Your task to perform on an android device: read, delete, or share a saved page in the chrome app Image 0: 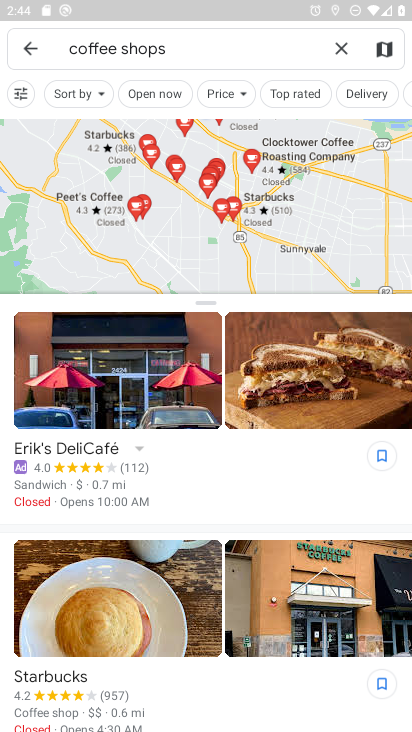
Step 0: press home button
Your task to perform on an android device: read, delete, or share a saved page in the chrome app Image 1: 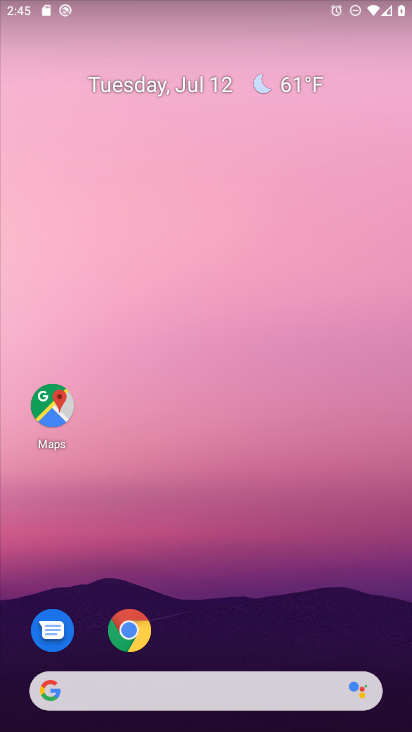
Step 1: click (132, 635)
Your task to perform on an android device: read, delete, or share a saved page in the chrome app Image 2: 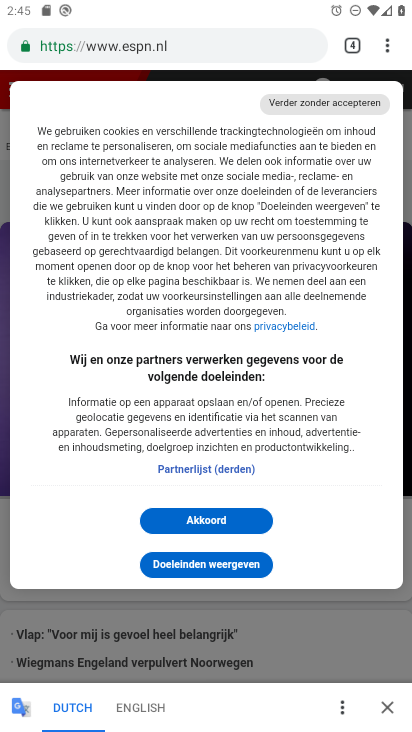
Step 2: click (391, 51)
Your task to perform on an android device: read, delete, or share a saved page in the chrome app Image 3: 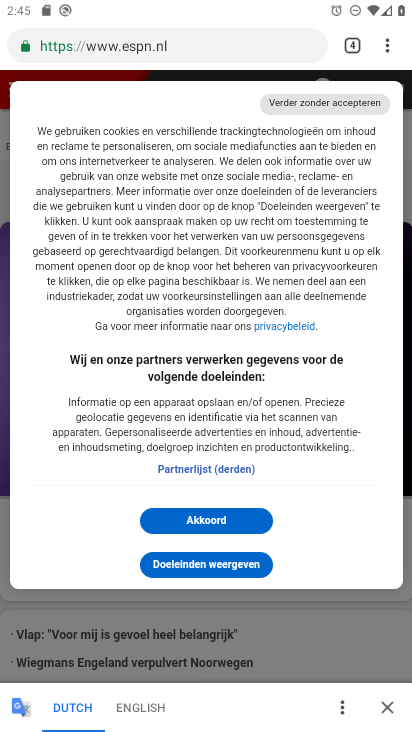
Step 3: click (380, 45)
Your task to perform on an android device: read, delete, or share a saved page in the chrome app Image 4: 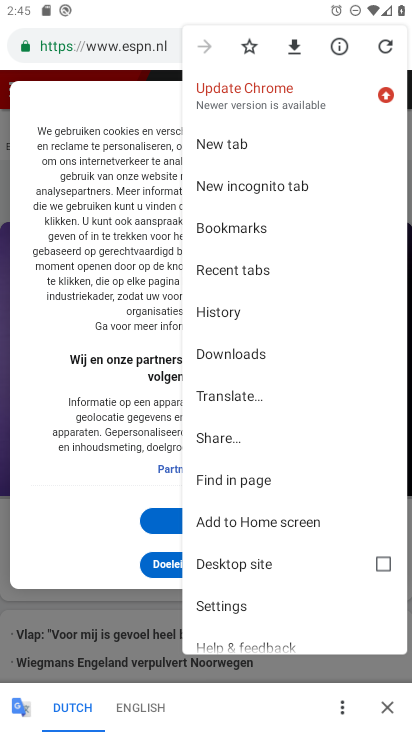
Step 4: click (240, 353)
Your task to perform on an android device: read, delete, or share a saved page in the chrome app Image 5: 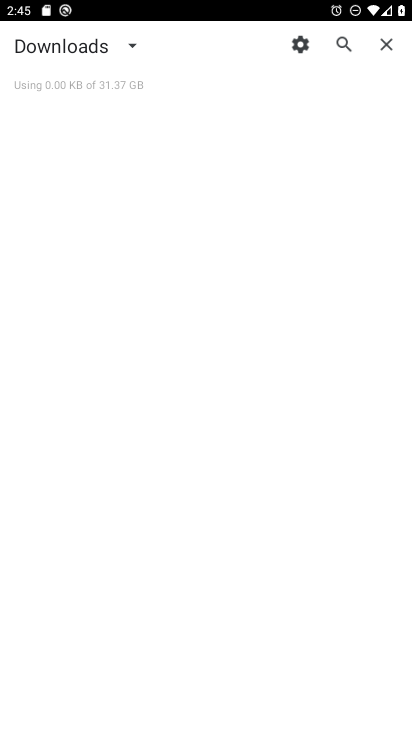
Step 5: click (134, 48)
Your task to perform on an android device: read, delete, or share a saved page in the chrome app Image 6: 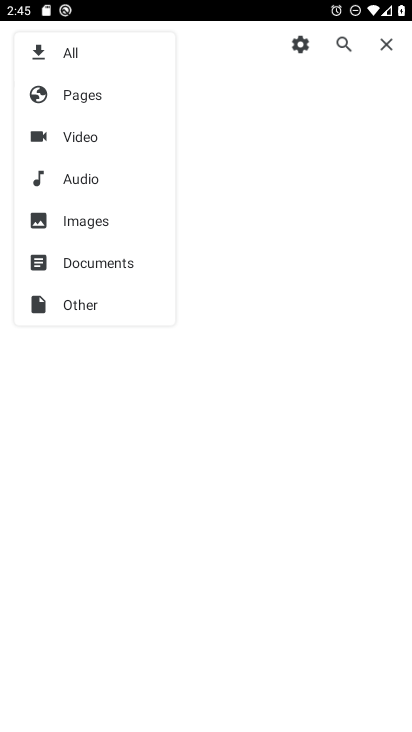
Step 6: click (101, 102)
Your task to perform on an android device: read, delete, or share a saved page in the chrome app Image 7: 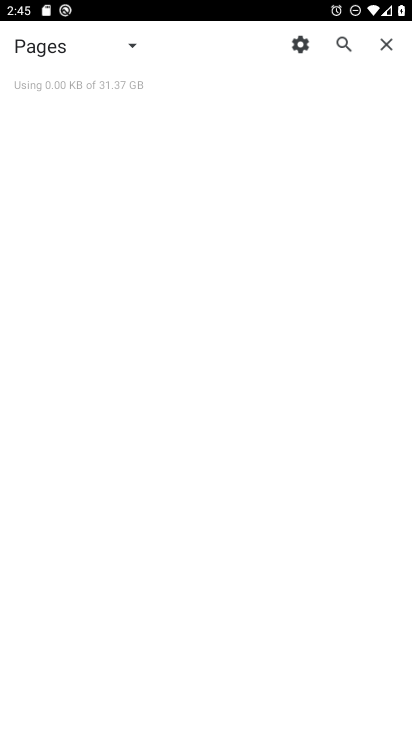
Step 7: task complete